Your task to perform on an android device: empty trash in google photos Image 0: 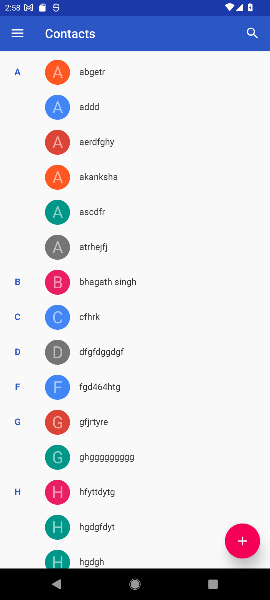
Step 0: press home button
Your task to perform on an android device: empty trash in google photos Image 1: 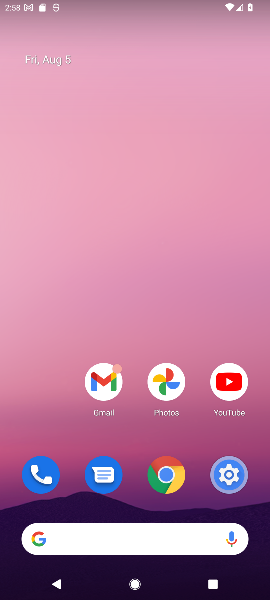
Step 1: click (171, 370)
Your task to perform on an android device: empty trash in google photos Image 2: 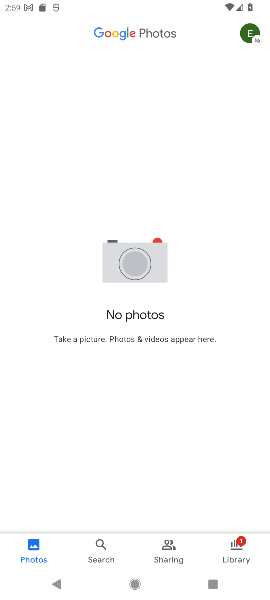
Step 2: click (250, 30)
Your task to perform on an android device: empty trash in google photos Image 3: 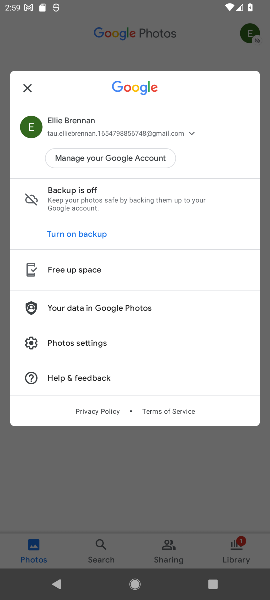
Step 3: click (76, 344)
Your task to perform on an android device: empty trash in google photos Image 4: 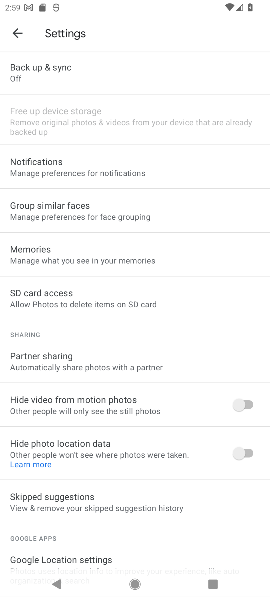
Step 4: drag from (101, 491) to (127, 222)
Your task to perform on an android device: empty trash in google photos Image 5: 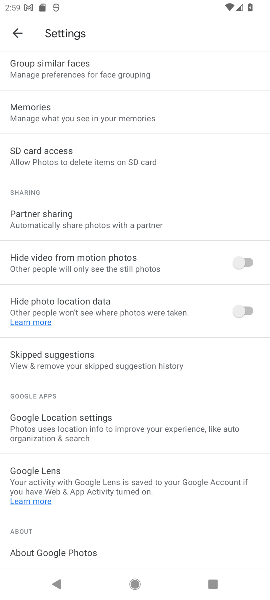
Step 5: click (12, 35)
Your task to perform on an android device: empty trash in google photos Image 6: 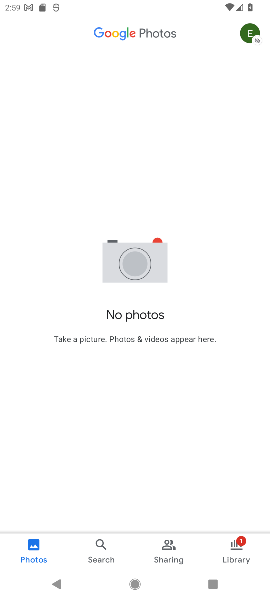
Step 6: click (242, 34)
Your task to perform on an android device: empty trash in google photos Image 7: 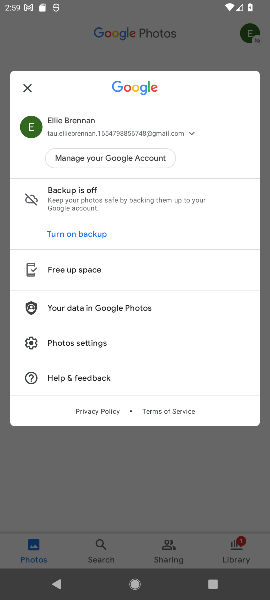
Step 7: click (54, 268)
Your task to perform on an android device: empty trash in google photos Image 8: 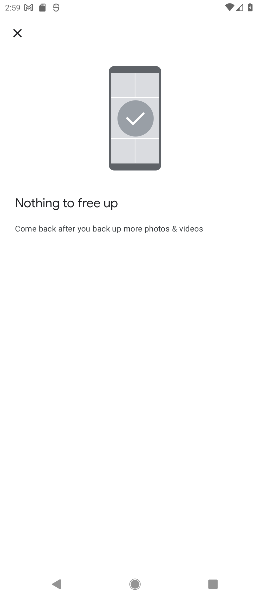
Step 8: click (16, 32)
Your task to perform on an android device: empty trash in google photos Image 9: 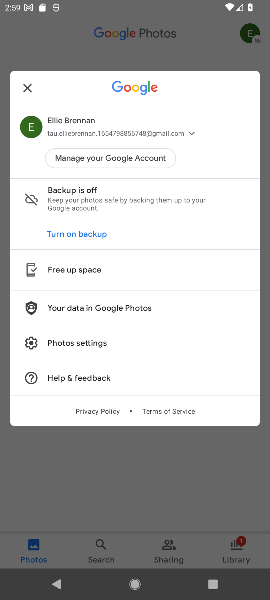
Step 9: task complete